Your task to perform on an android device: check data usage Image 0: 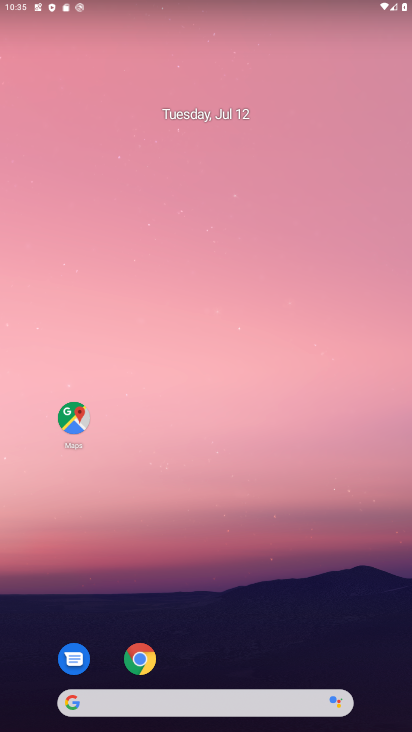
Step 0: click (339, 142)
Your task to perform on an android device: check data usage Image 1: 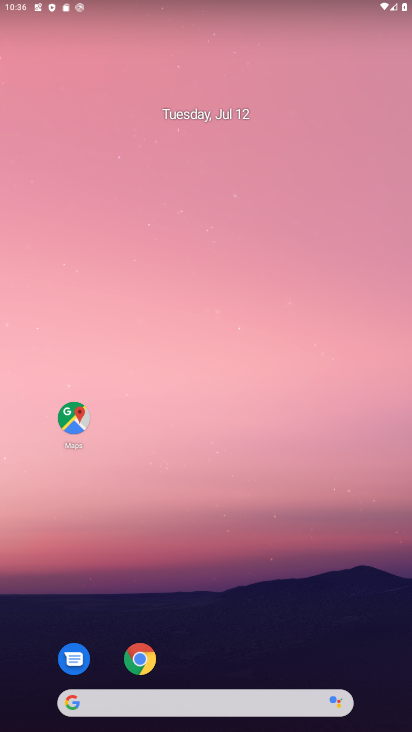
Step 1: drag from (383, 691) to (358, 70)
Your task to perform on an android device: check data usage Image 2: 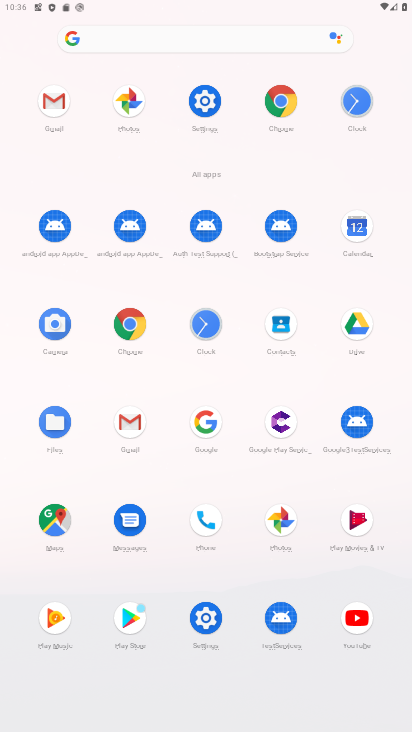
Step 2: click (202, 108)
Your task to perform on an android device: check data usage Image 3: 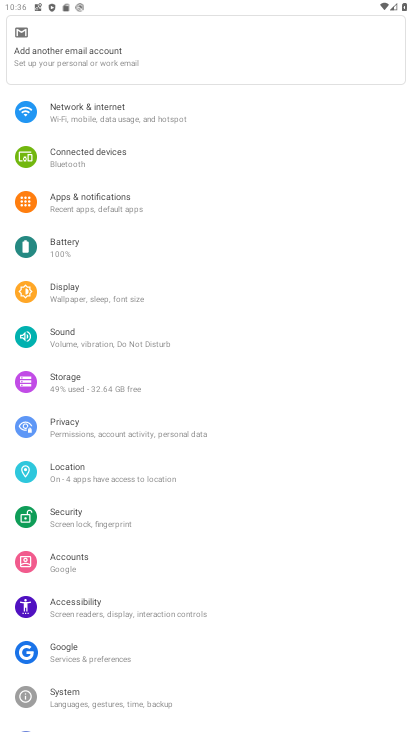
Step 3: click (105, 105)
Your task to perform on an android device: check data usage Image 4: 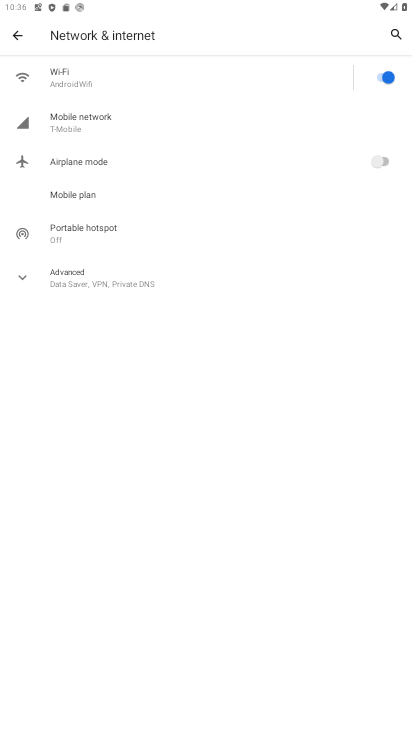
Step 4: click (49, 111)
Your task to perform on an android device: check data usage Image 5: 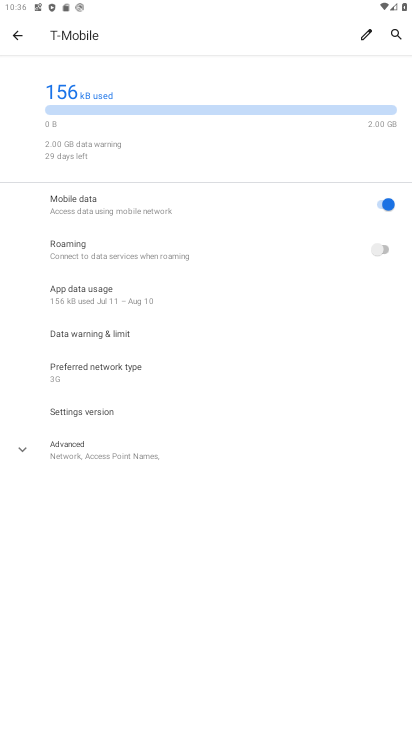
Step 5: task complete